Your task to perform on an android device: open app "Mercado Libre" (install if not already installed) and go to login screen Image 0: 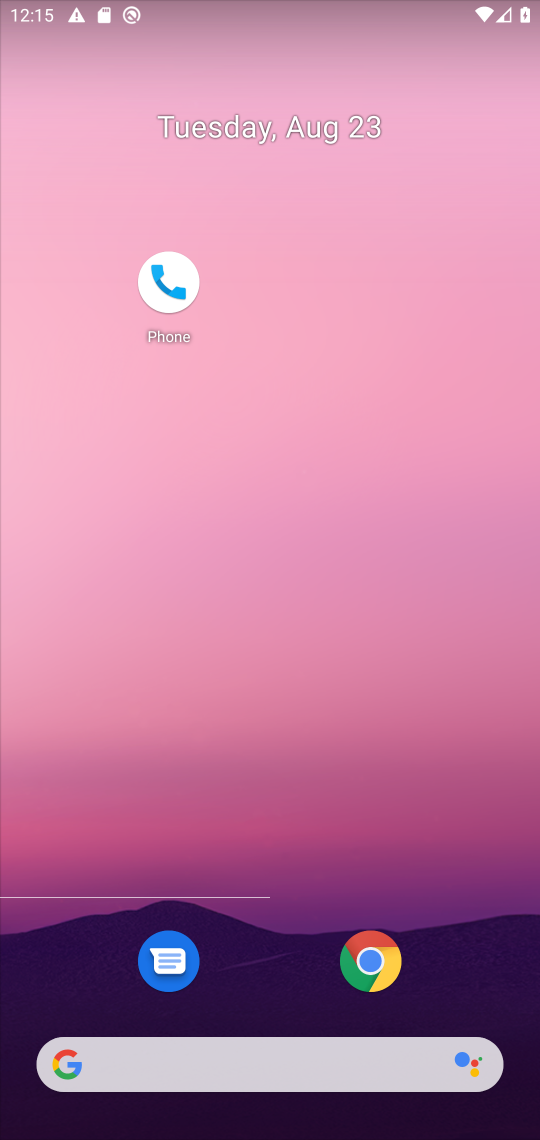
Step 0: drag from (286, 987) to (414, 355)
Your task to perform on an android device: open app "Mercado Libre" (install if not already installed) and go to login screen Image 1: 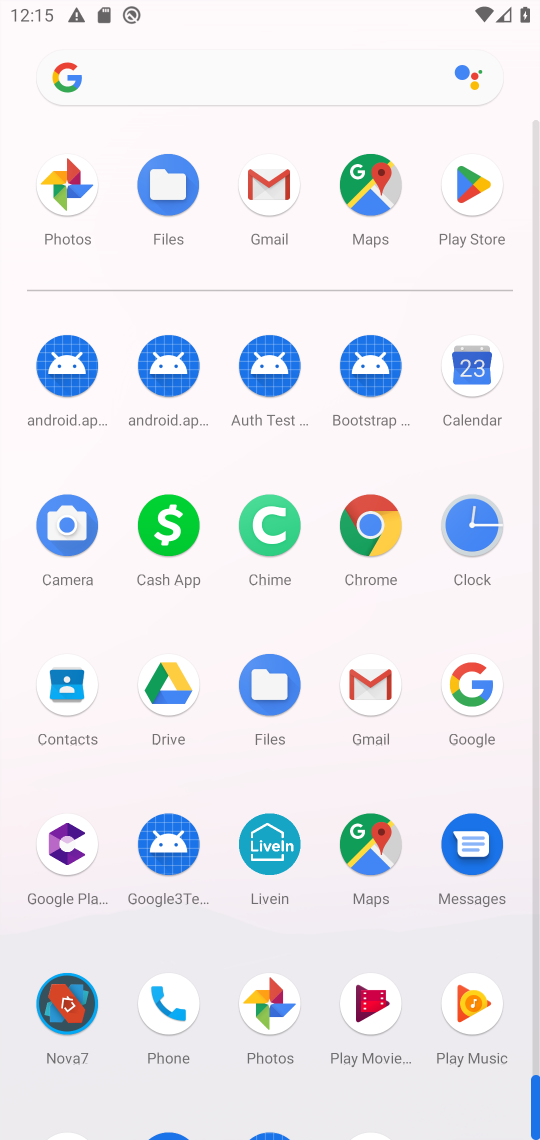
Step 1: click (497, 183)
Your task to perform on an android device: open app "Mercado Libre" (install if not already installed) and go to login screen Image 2: 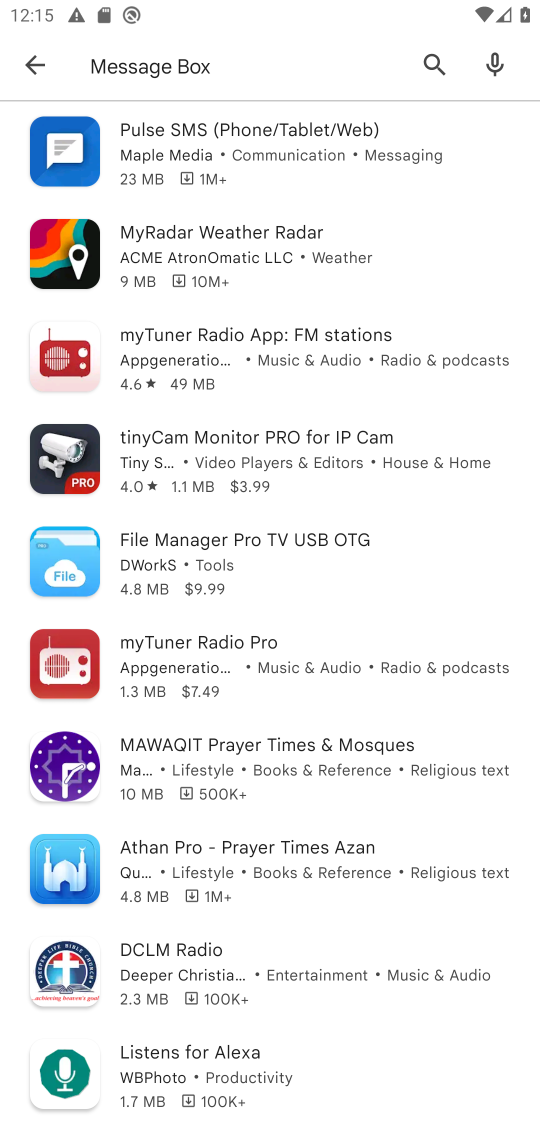
Step 2: click (443, 79)
Your task to perform on an android device: open app "Mercado Libre" (install if not already installed) and go to login screen Image 3: 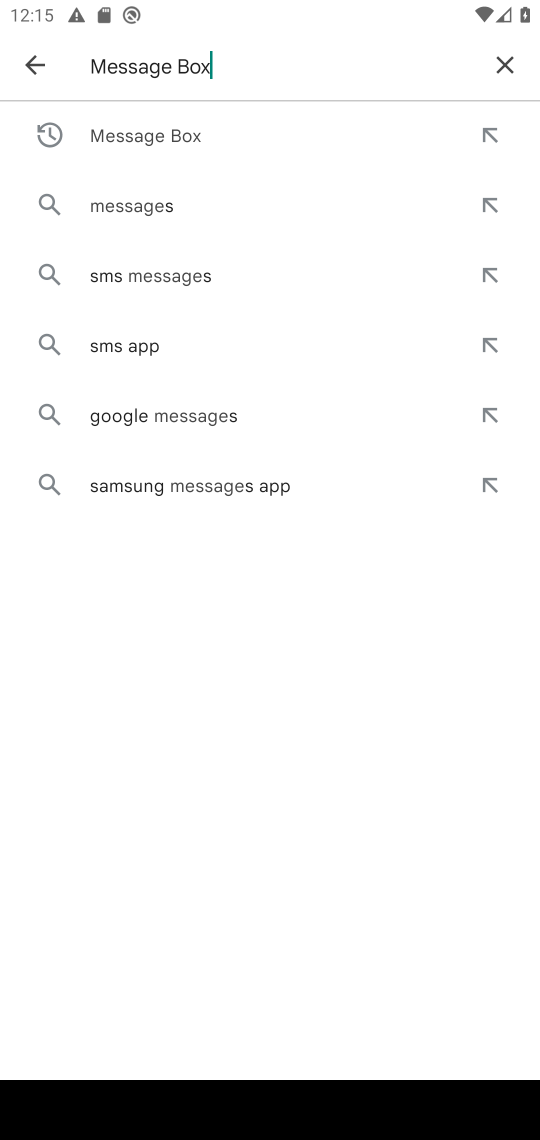
Step 3: click (505, 67)
Your task to perform on an android device: open app "Mercado Libre" (install if not already installed) and go to login screen Image 4: 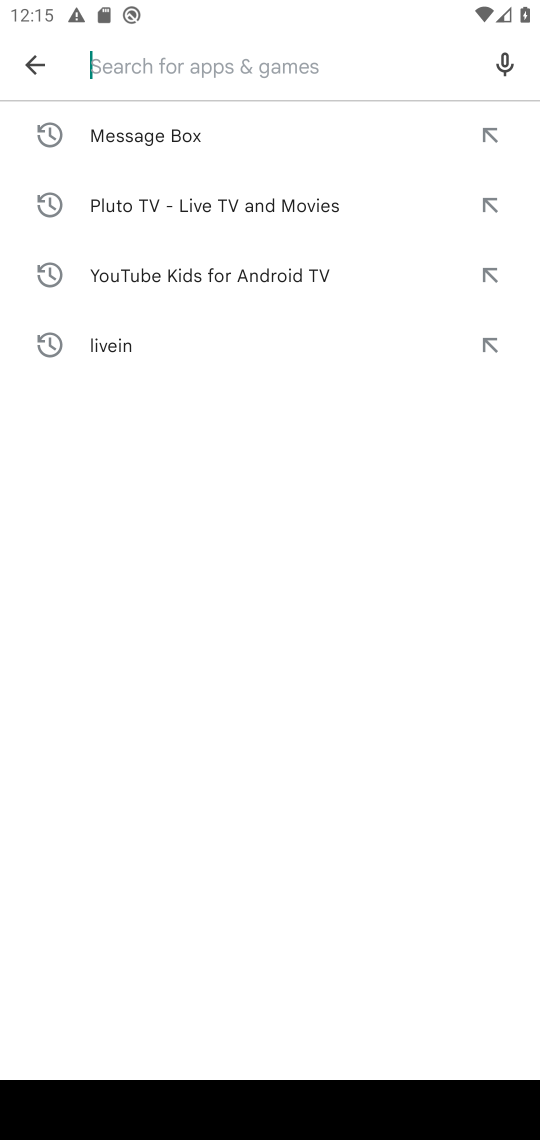
Step 4: type "mercado"
Your task to perform on an android device: open app "Mercado Libre" (install if not already installed) and go to login screen Image 5: 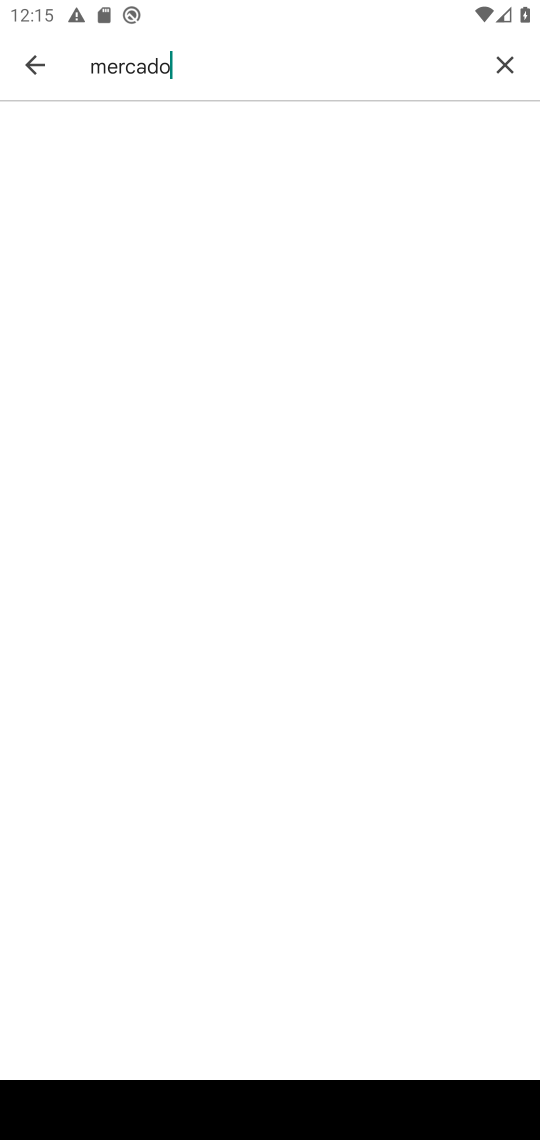
Step 5: task complete